Your task to perform on an android device: change notifications settings Image 0: 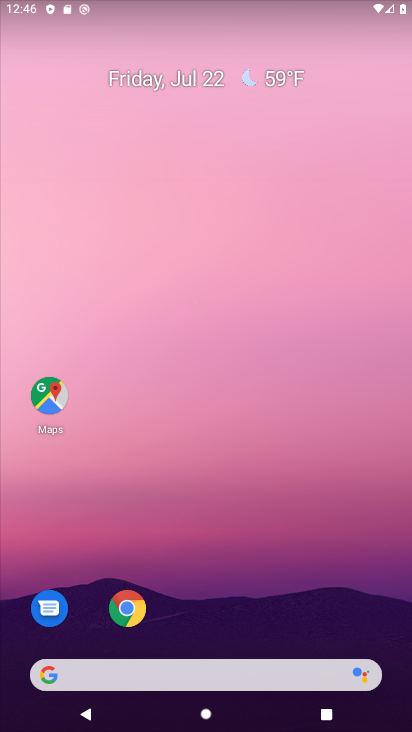
Step 0: drag from (202, 495) to (256, 224)
Your task to perform on an android device: change notifications settings Image 1: 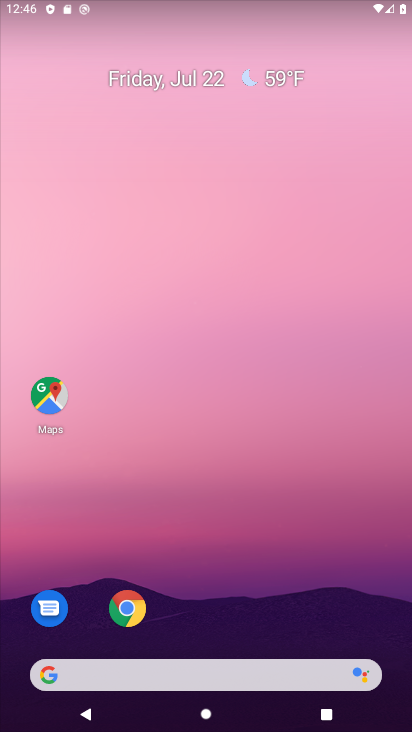
Step 1: drag from (269, 643) to (274, 99)
Your task to perform on an android device: change notifications settings Image 2: 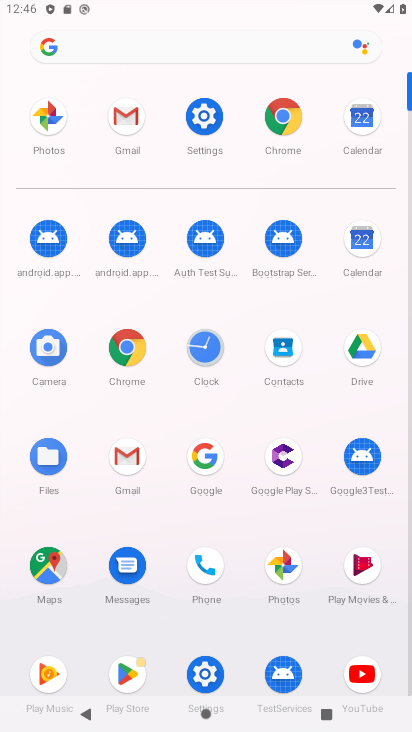
Step 2: click (204, 133)
Your task to perform on an android device: change notifications settings Image 3: 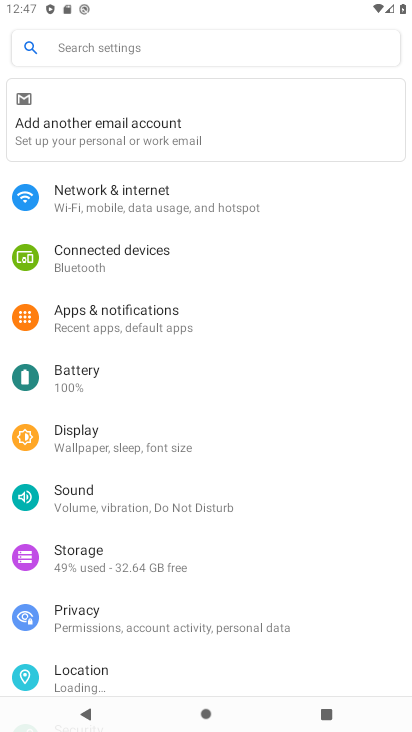
Step 3: click (141, 322)
Your task to perform on an android device: change notifications settings Image 4: 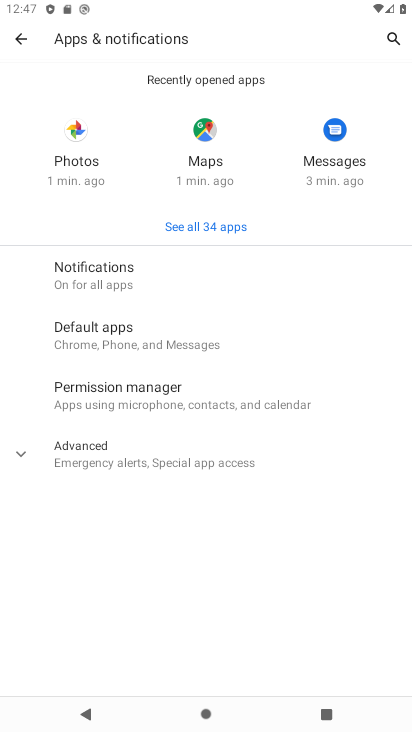
Step 4: click (133, 267)
Your task to perform on an android device: change notifications settings Image 5: 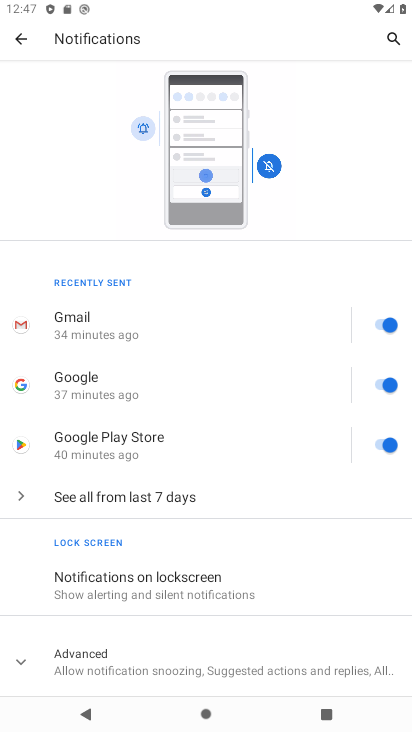
Step 5: click (152, 502)
Your task to perform on an android device: change notifications settings Image 6: 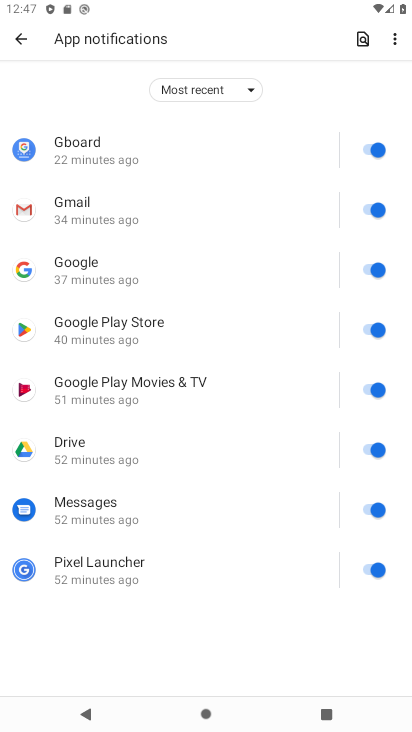
Step 6: click (362, 149)
Your task to perform on an android device: change notifications settings Image 7: 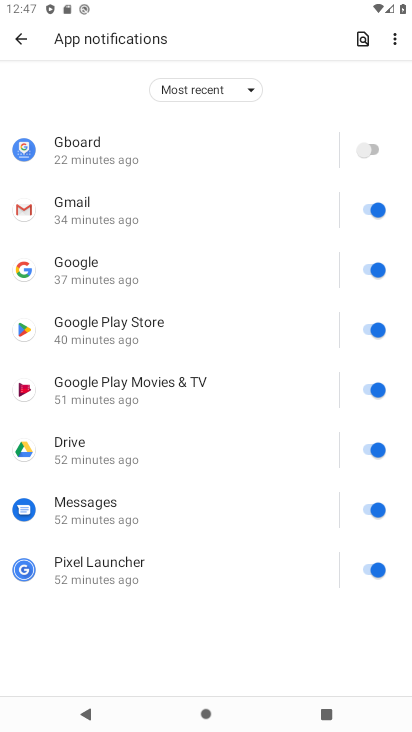
Step 7: click (358, 209)
Your task to perform on an android device: change notifications settings Image 8: 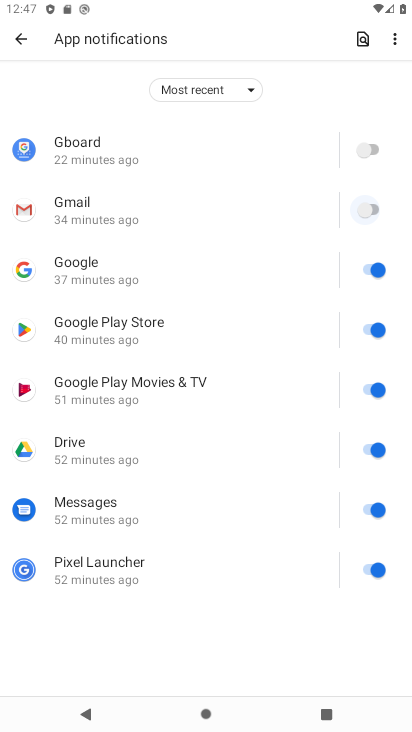
Step 8: click (353, 262)
Your task to perform on an android device: change notifications settings Image 9: 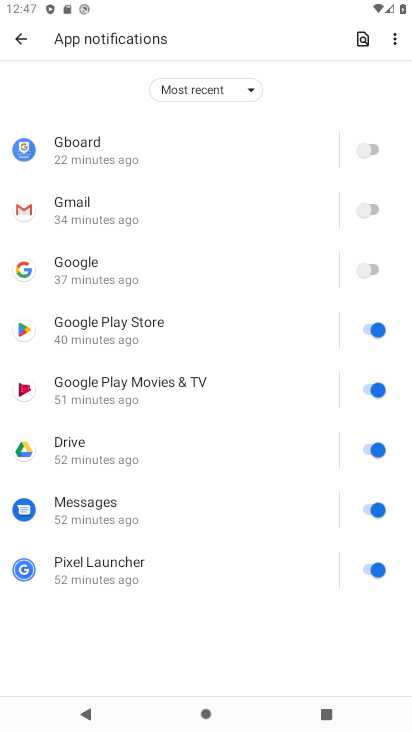
Step 9: click (349, 312)
Your task to perform on an android device: change notifications settings Image 10: 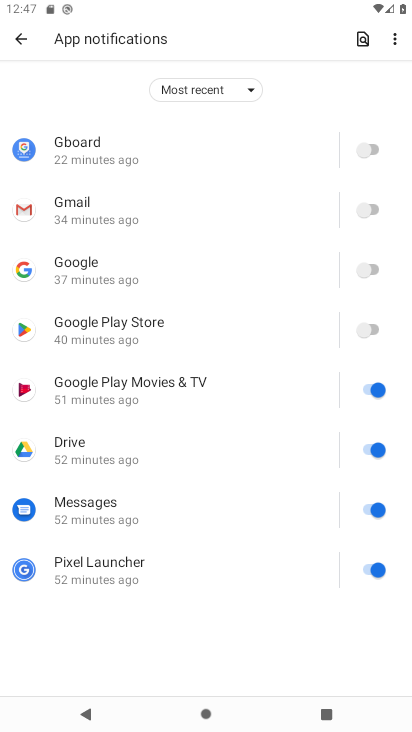
Step 10: click (357, 394)
Your task to perform on an android device: change notifications settings Image 11: 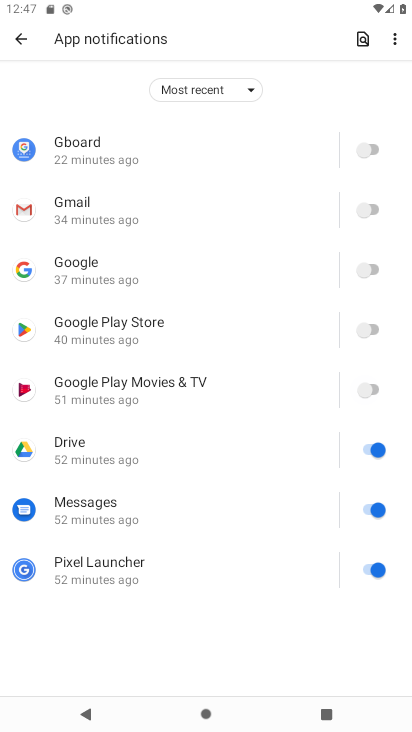
Step 11: click (352, 447)
Your task to perform on an android device: change notifications settings Image 12: 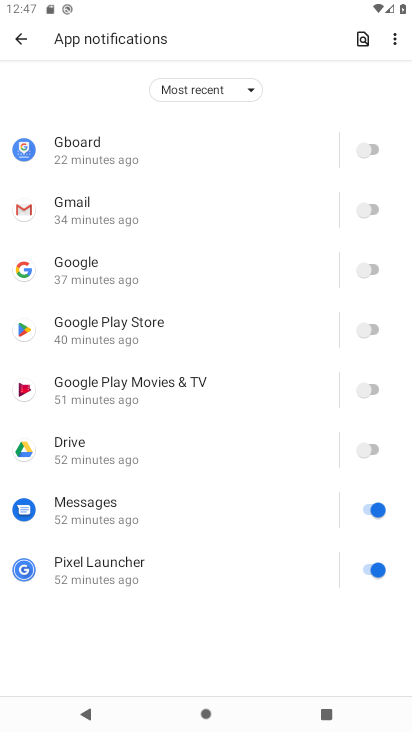
Step 12: click (351, 509)
Your task to perform on an android device: change notifications settings Image 13: 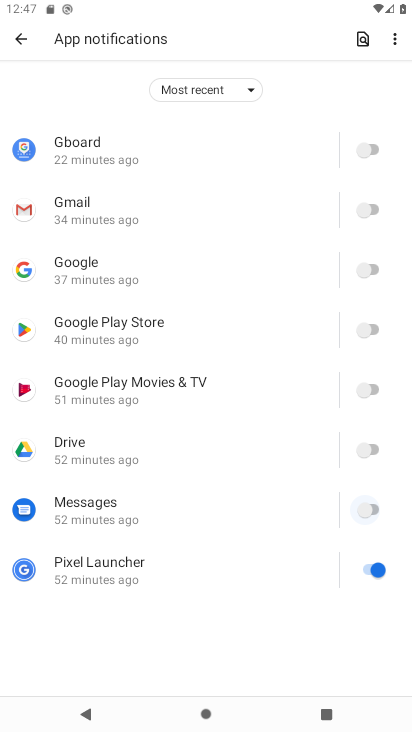
Step 13: click (376, 576)
Your task to perform on an android device: change notifications settings Image 14: 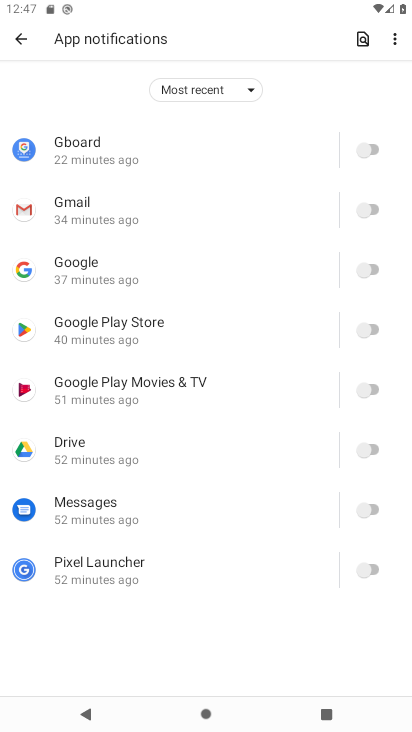
Step 14: task complete